Your task to perform on an android device: What's the news this week? Image 0: 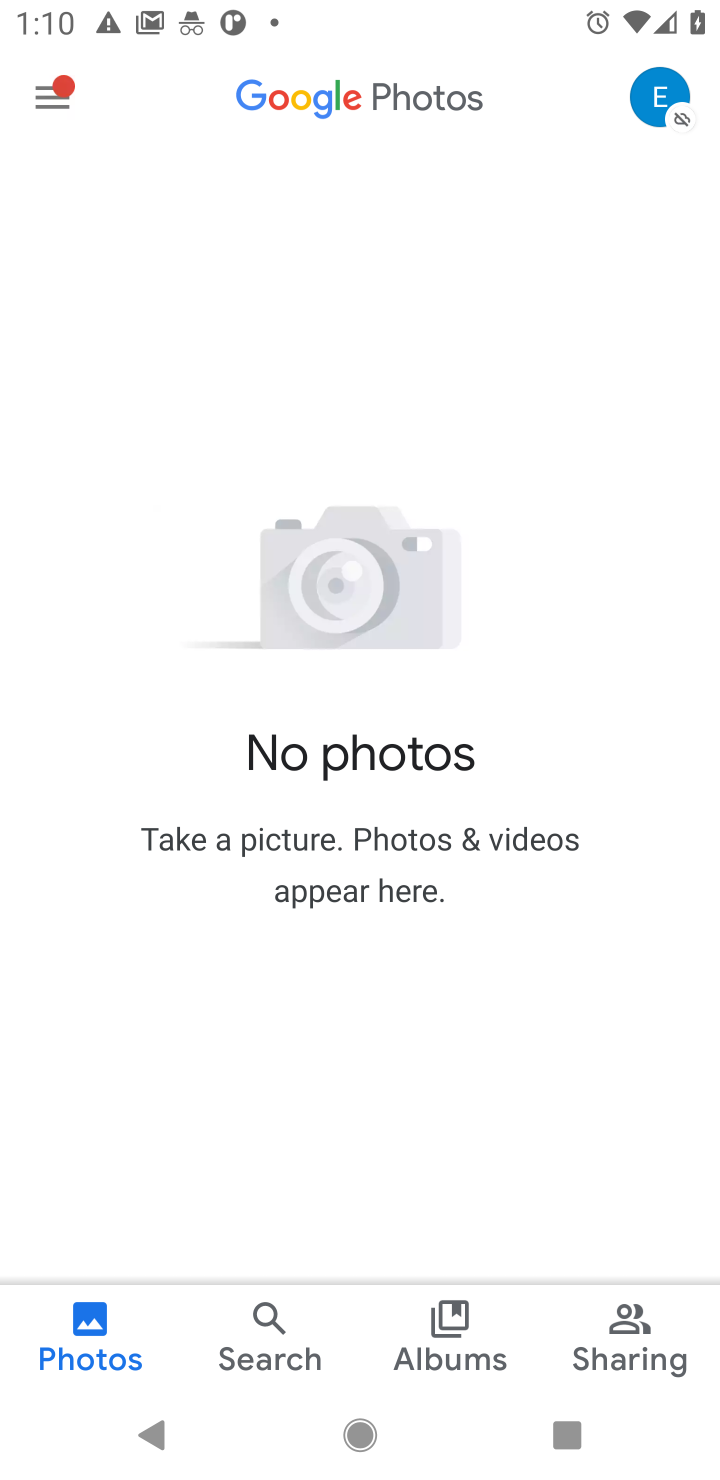
Step 0: press home button
Your task to perform on an android device: What's the news this week? Image 1: 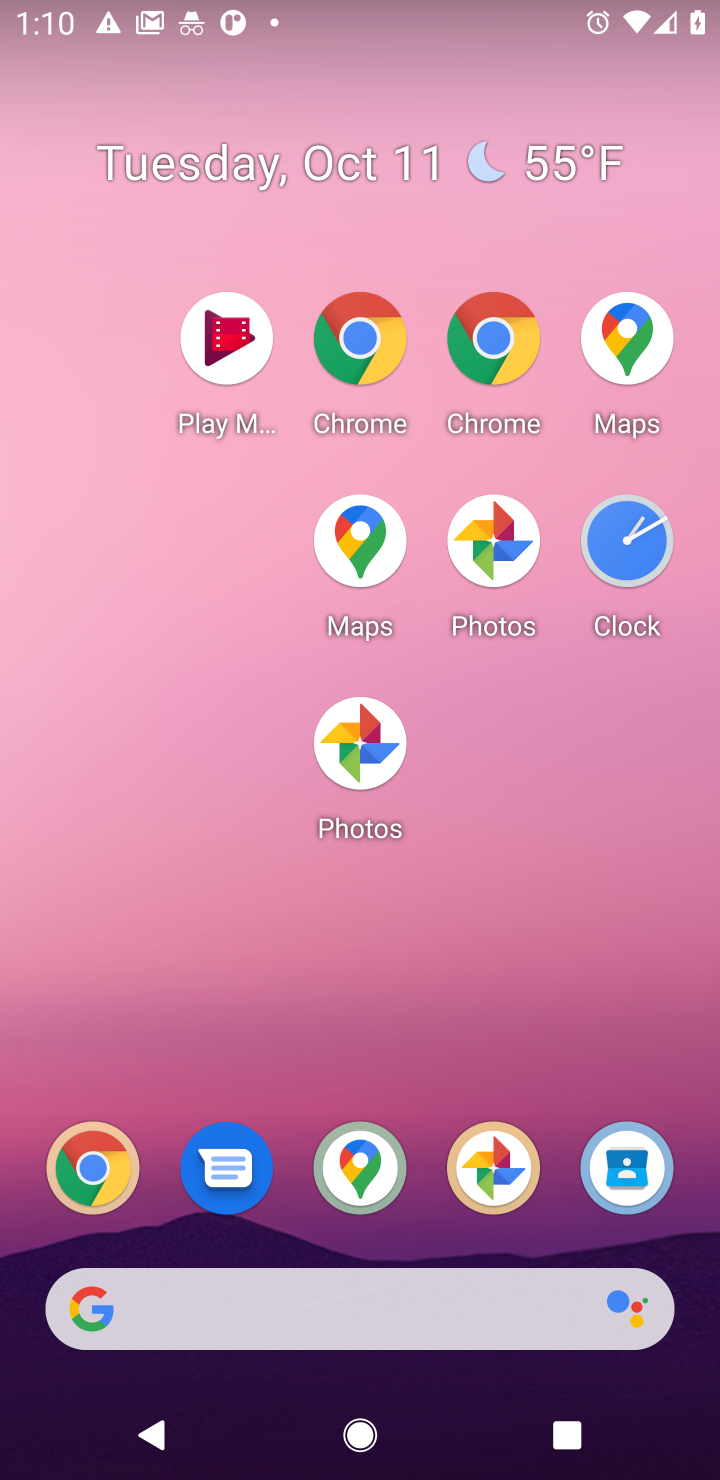
Step 1: click (661, 920)
Your task to perform on an android device: What's the news this week? Image 2: 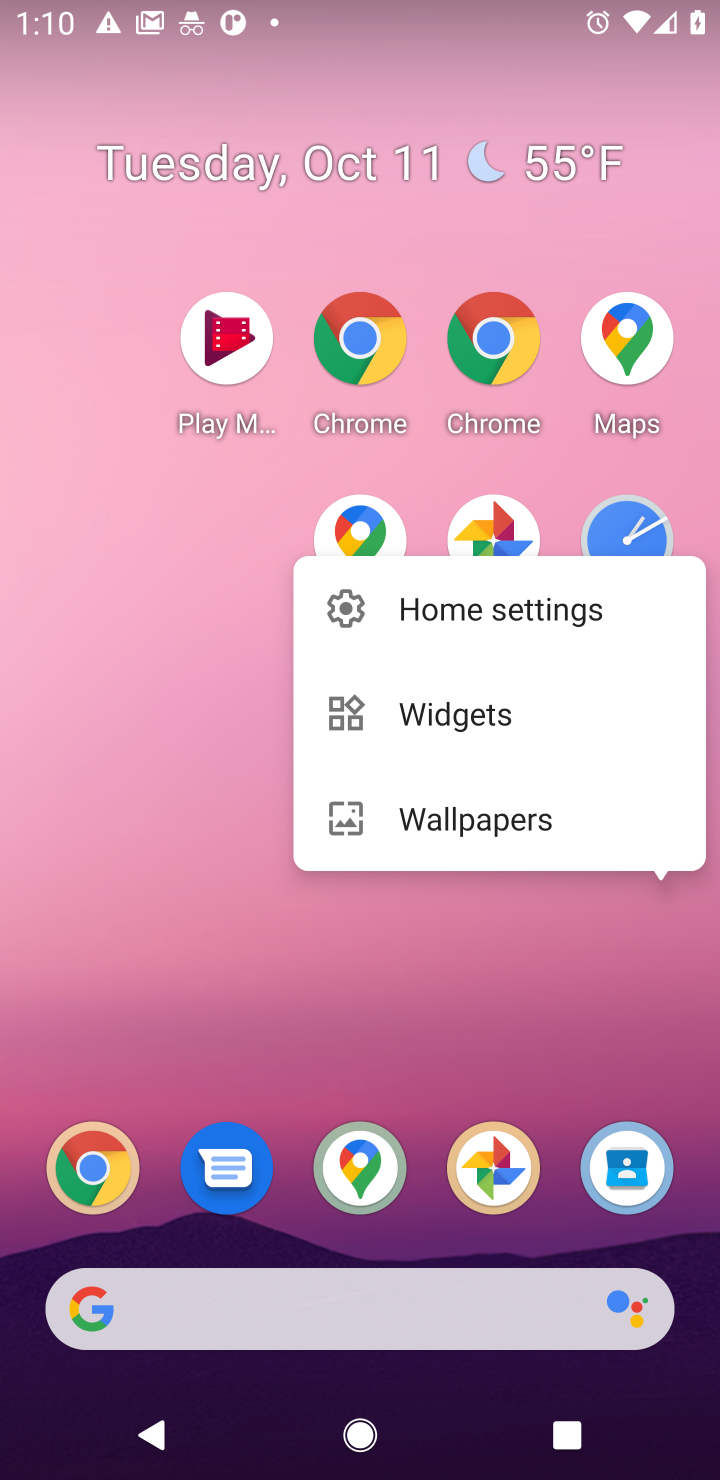
Step 2: drag from (392, 1240) to (510, 6)
Your task to perform on an android device: What's the news this week? Image 3: 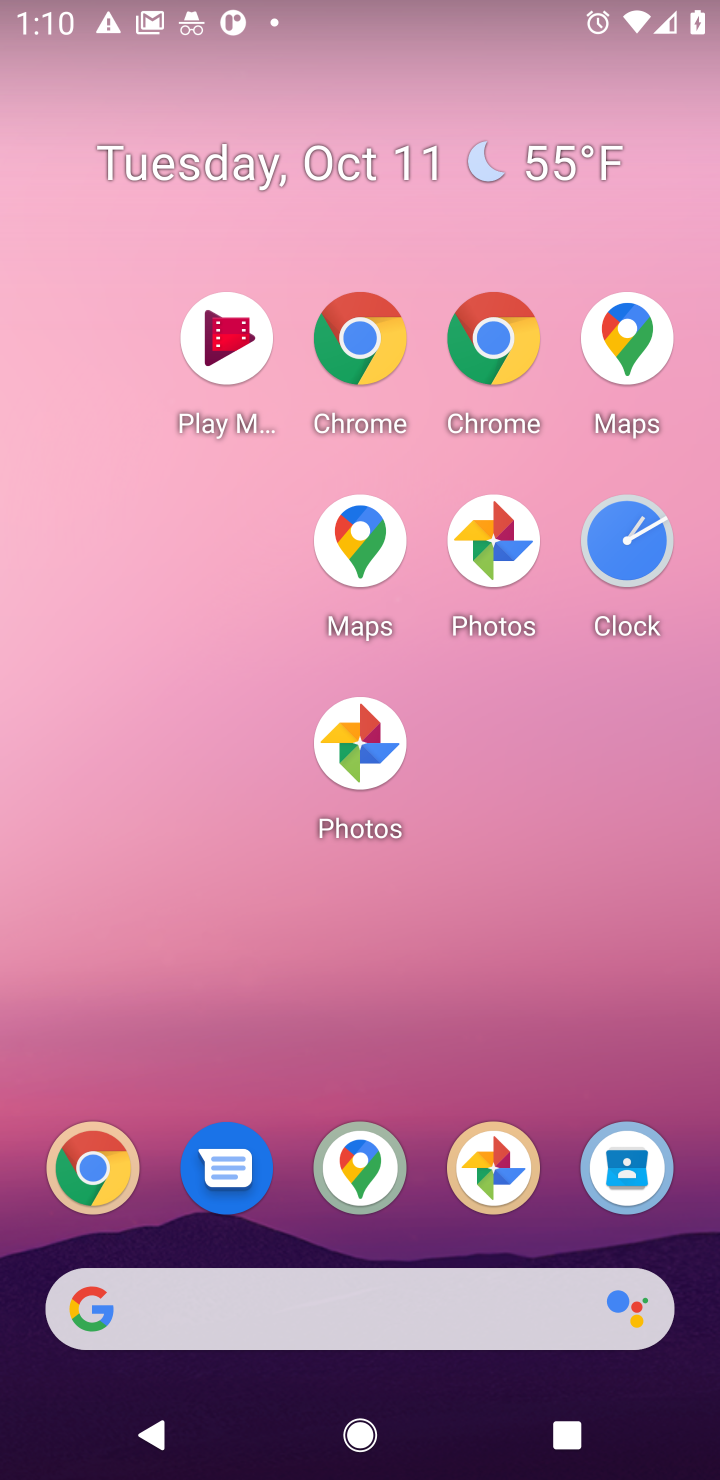
Step 3: drag from (430, 553) to (519, 3)
Your task to perform on an android device: What's the news this week? Image 4: 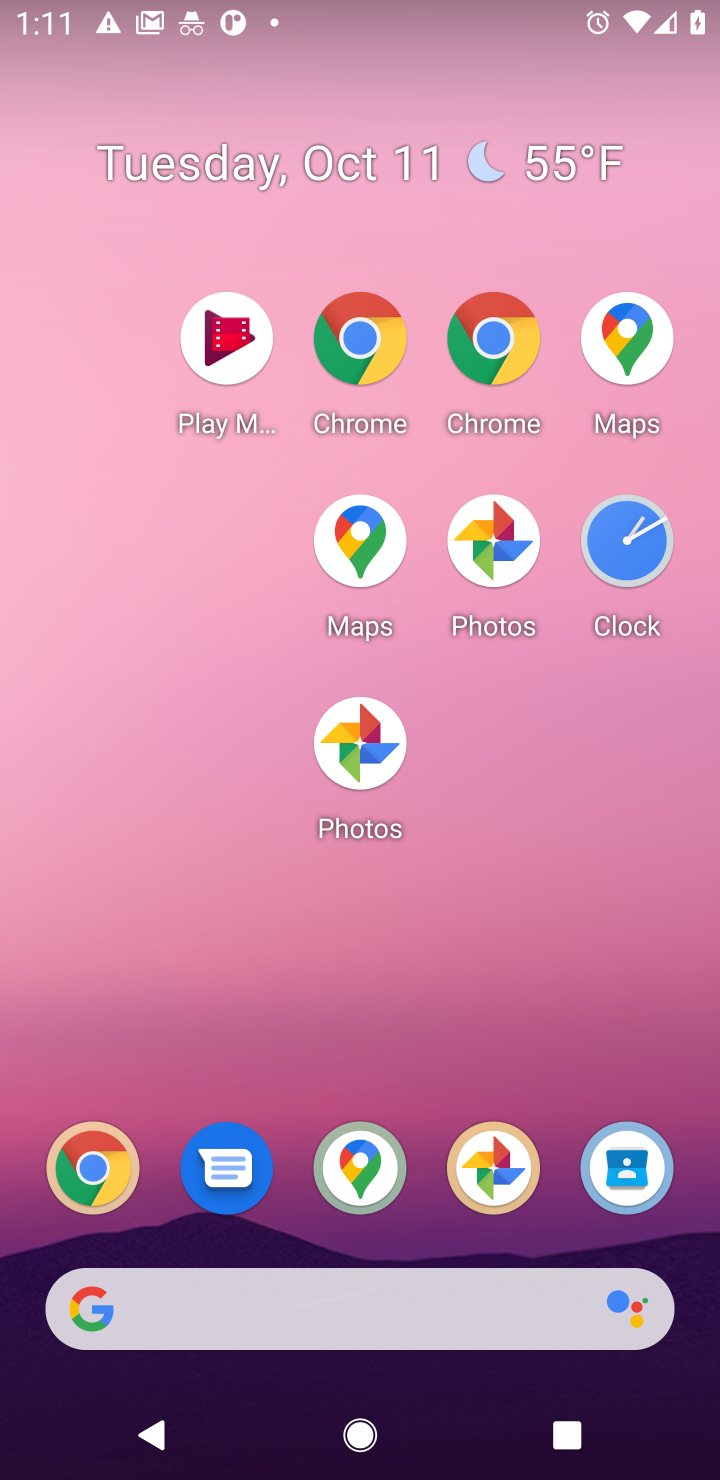
Step 4: drag from (435, 1112) to (447, 549)
Your task to perform on an android device: What's the news this week? Image 5: 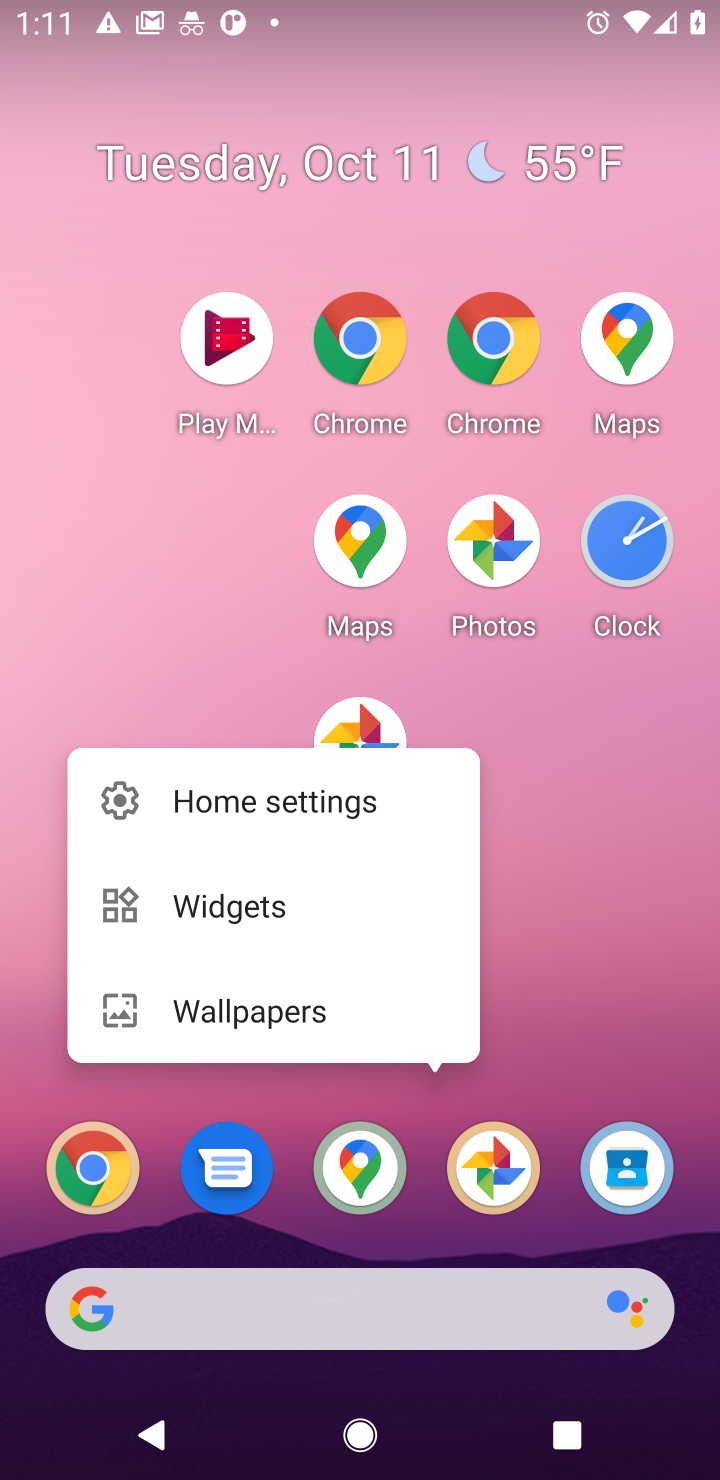
Step 5: click (246, 641)
Your task to perform on an android device: What's the news this week? Image 6: 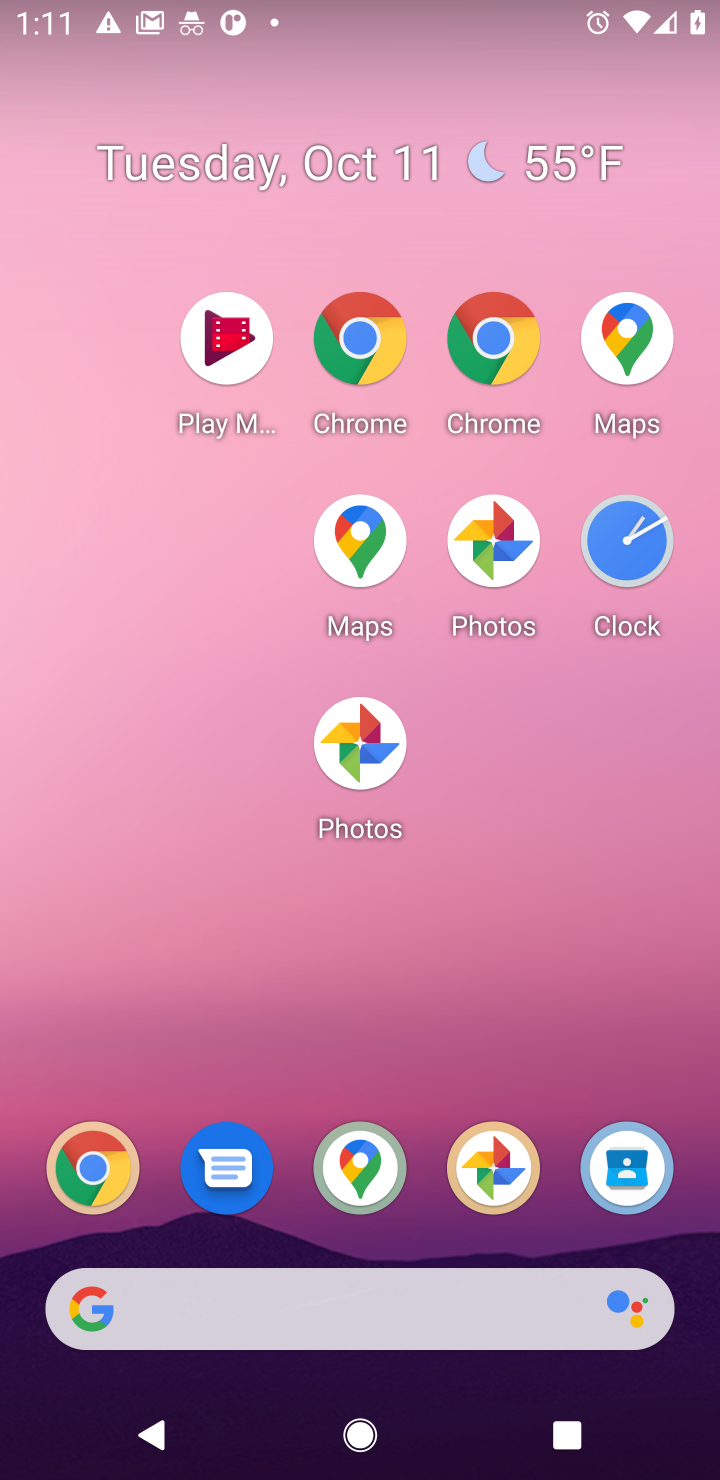
Step 6: drag from (394, 1182) to (480, 21)
Your task to perform on an android device: What's the news this week? Image 7: 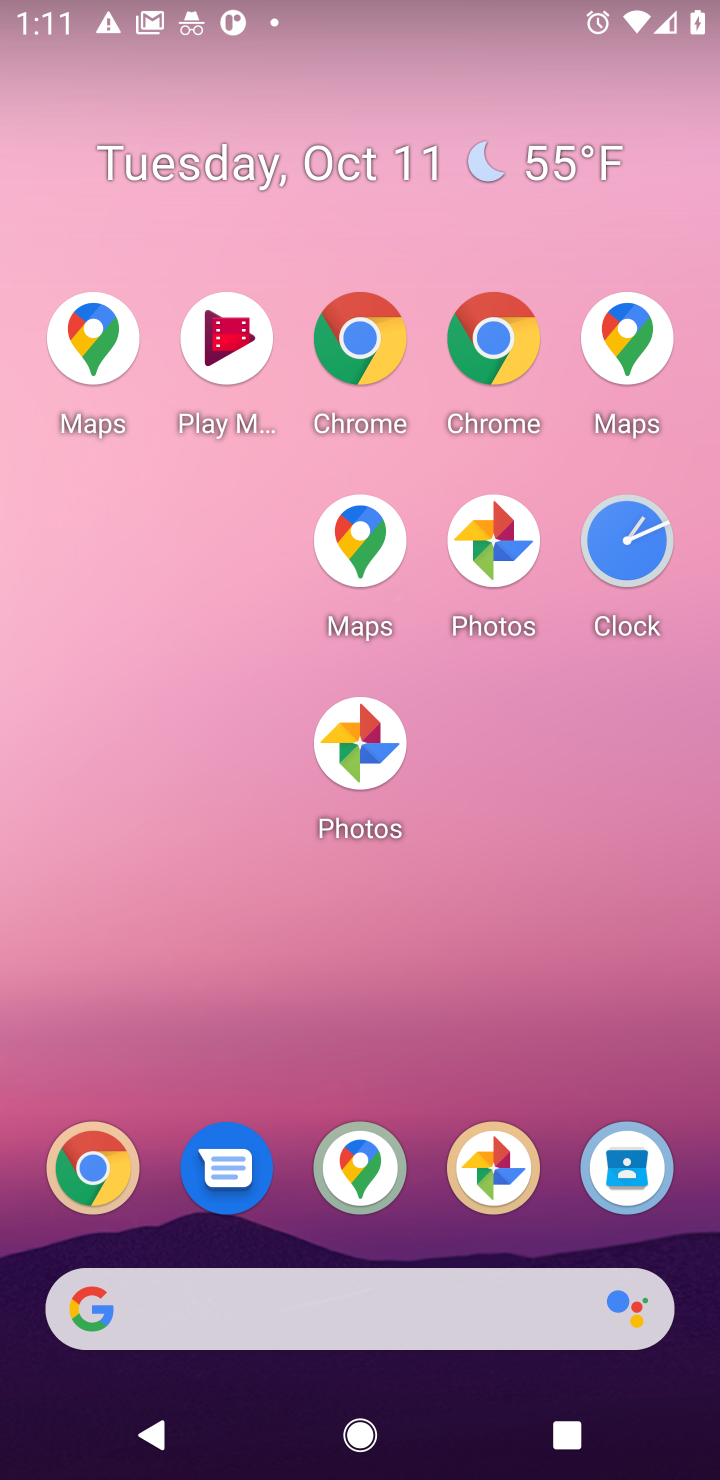
Step 7: drag from (417, 1082) to (542, 478)
Your task to perform on an android device: What's the news this week? Image 8: 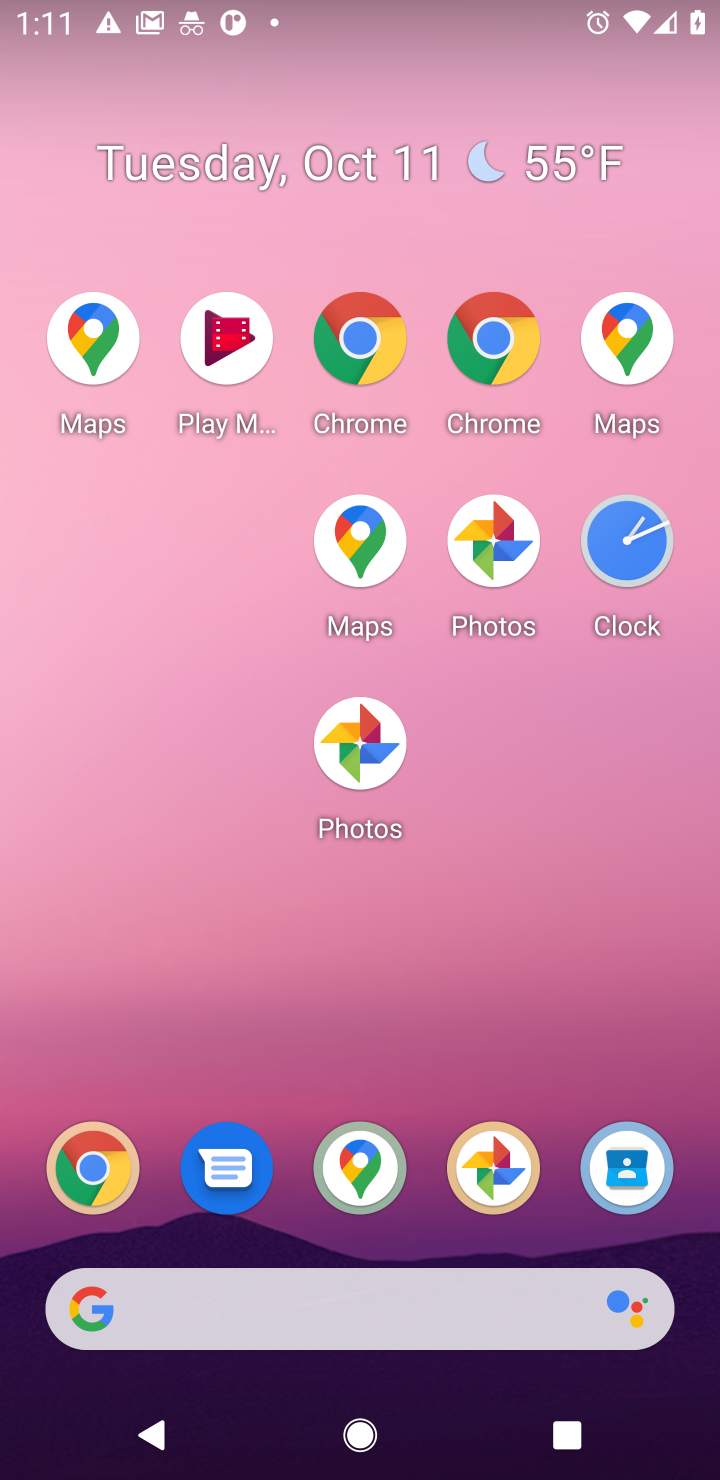
Step 8: drag from (528, 796) to (565, 281)
Your task to perform on an android device: What's the news this week? Image 9: 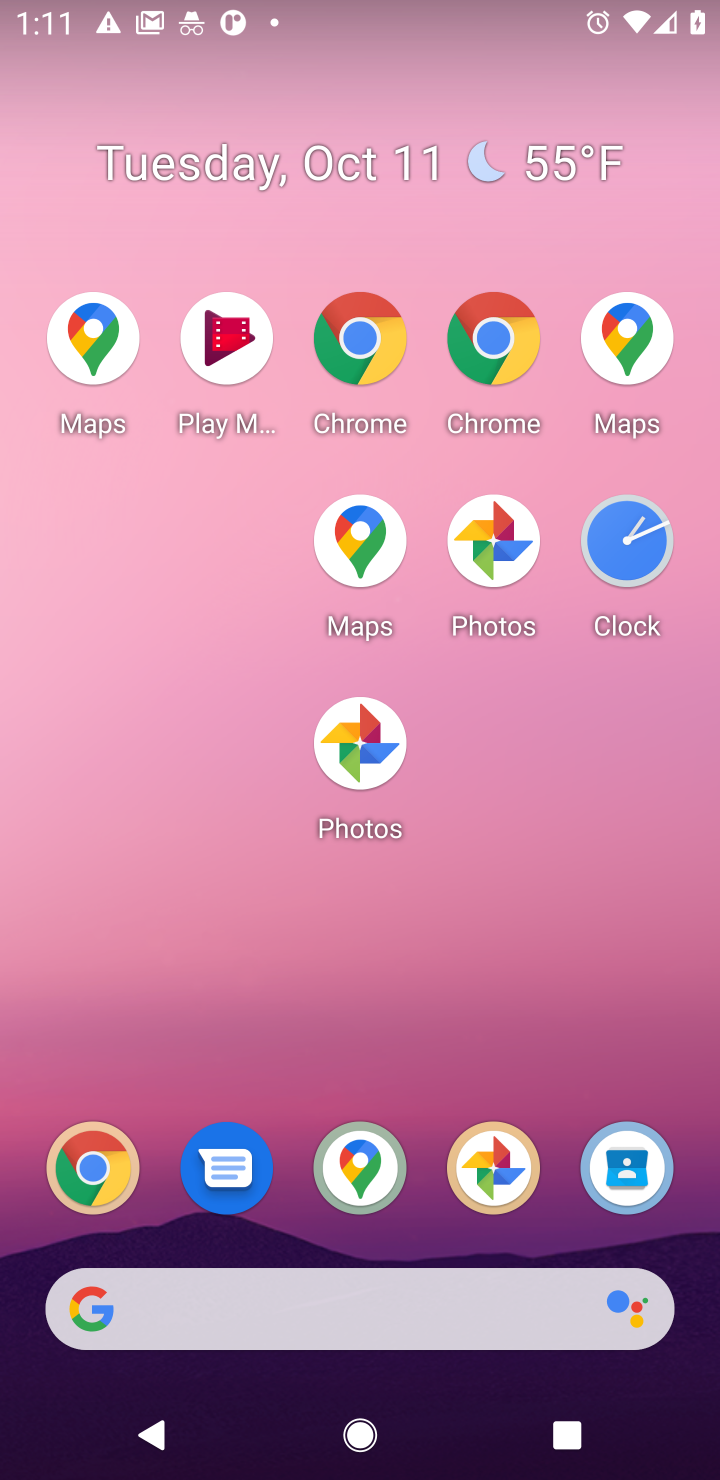
Step 9: drag from (435, 1107) to (483, 651)
Your task to perform on an android device: What's the news this week? Image 10: 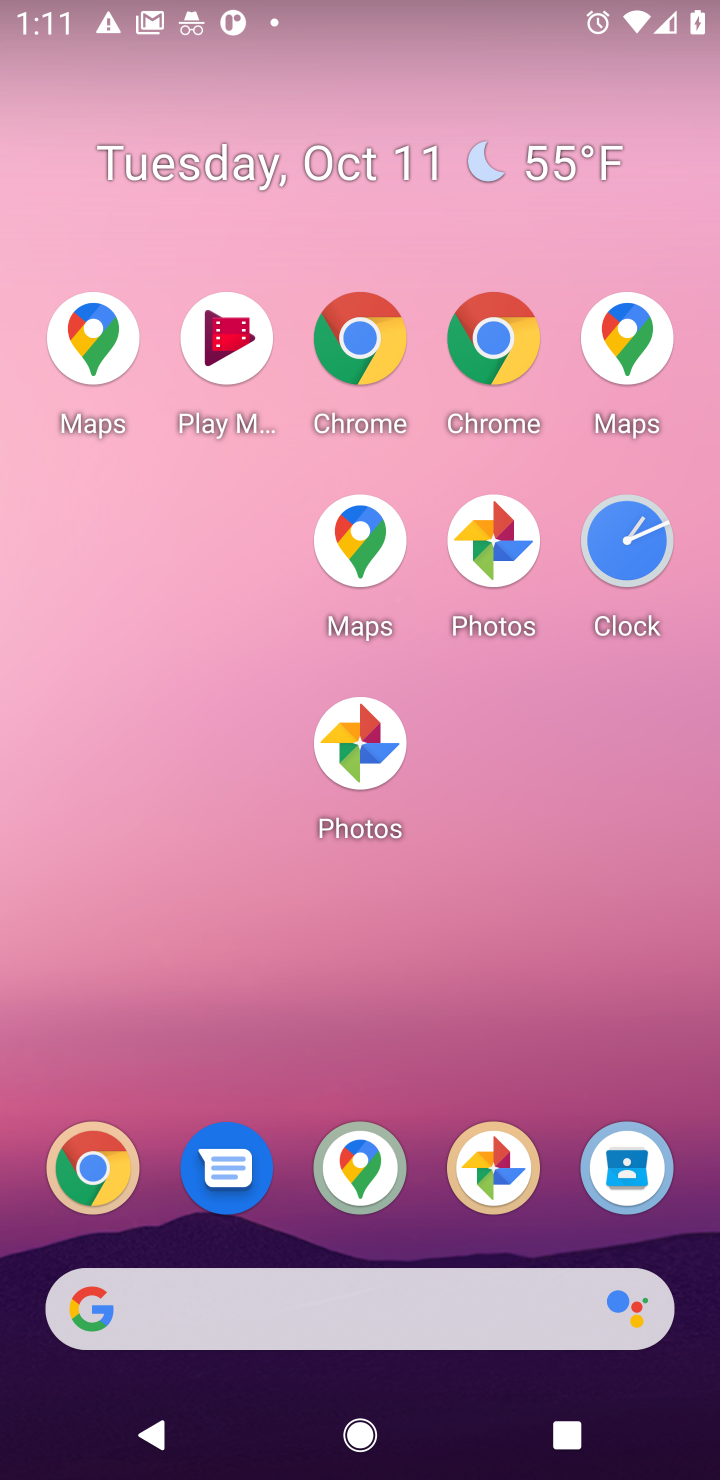
Step 10: drag from (459, 1077) to (541, 330)
Your task to perform on an android device: What's the news this week? Image 11: 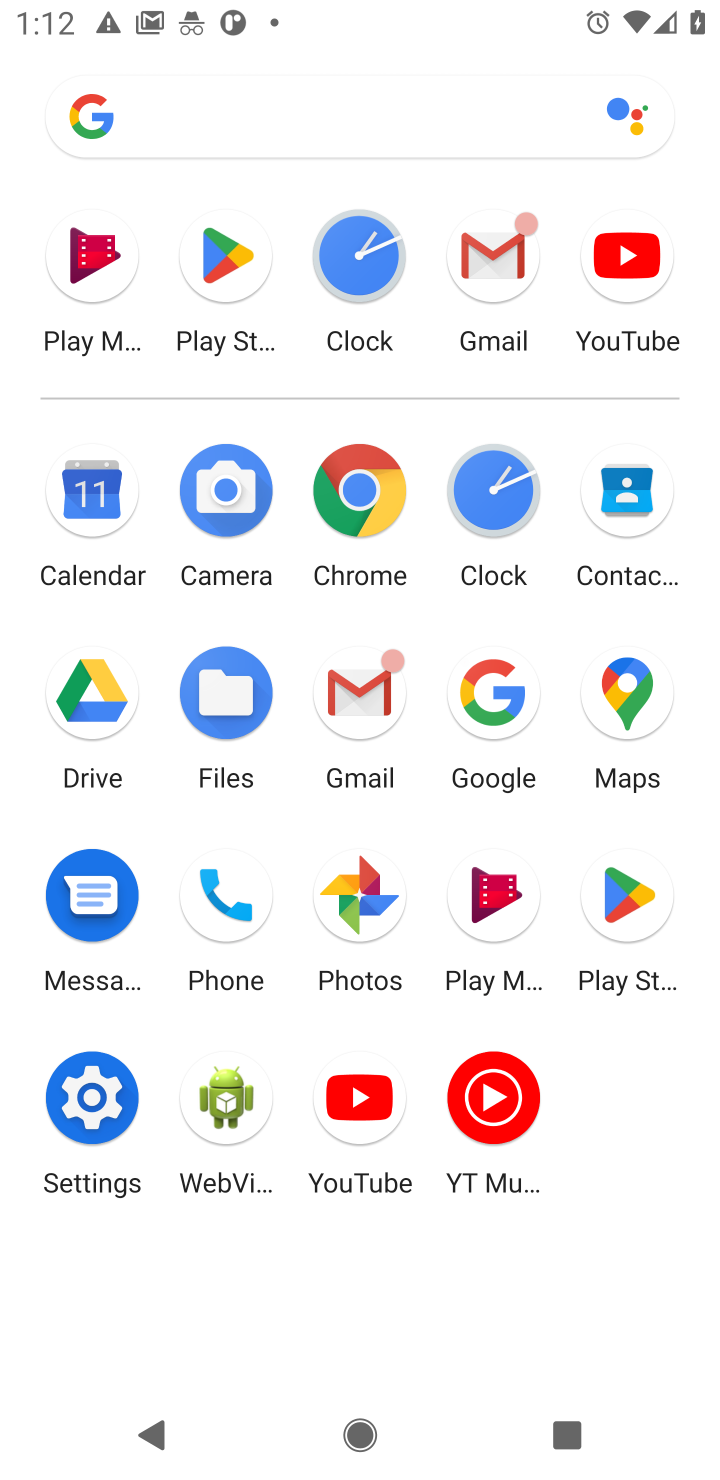
Step 11: click (508, 703)
Your task to perform on an android device: What's the news this week? Image 12: 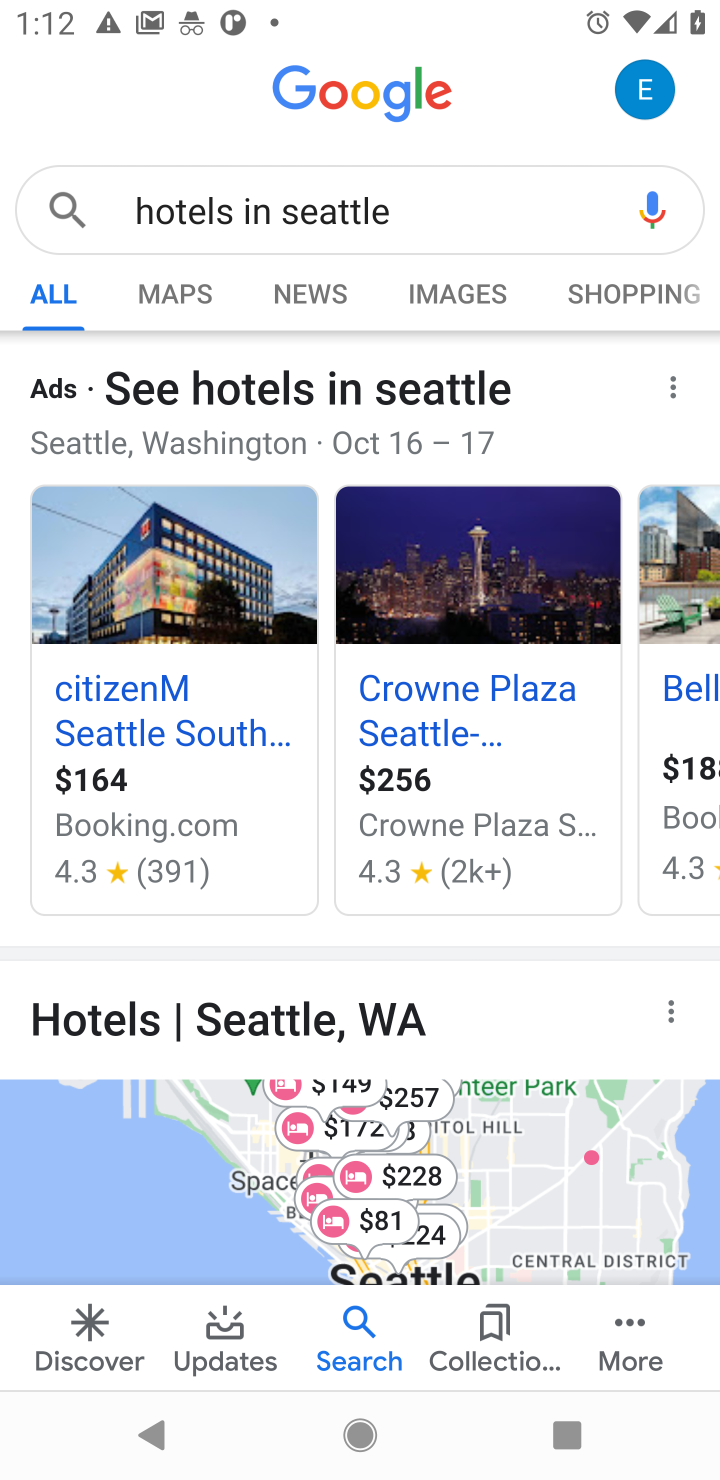
Step 12: click (505, 205)
Your task to perform on an android device: What's the news this week? Image 13: 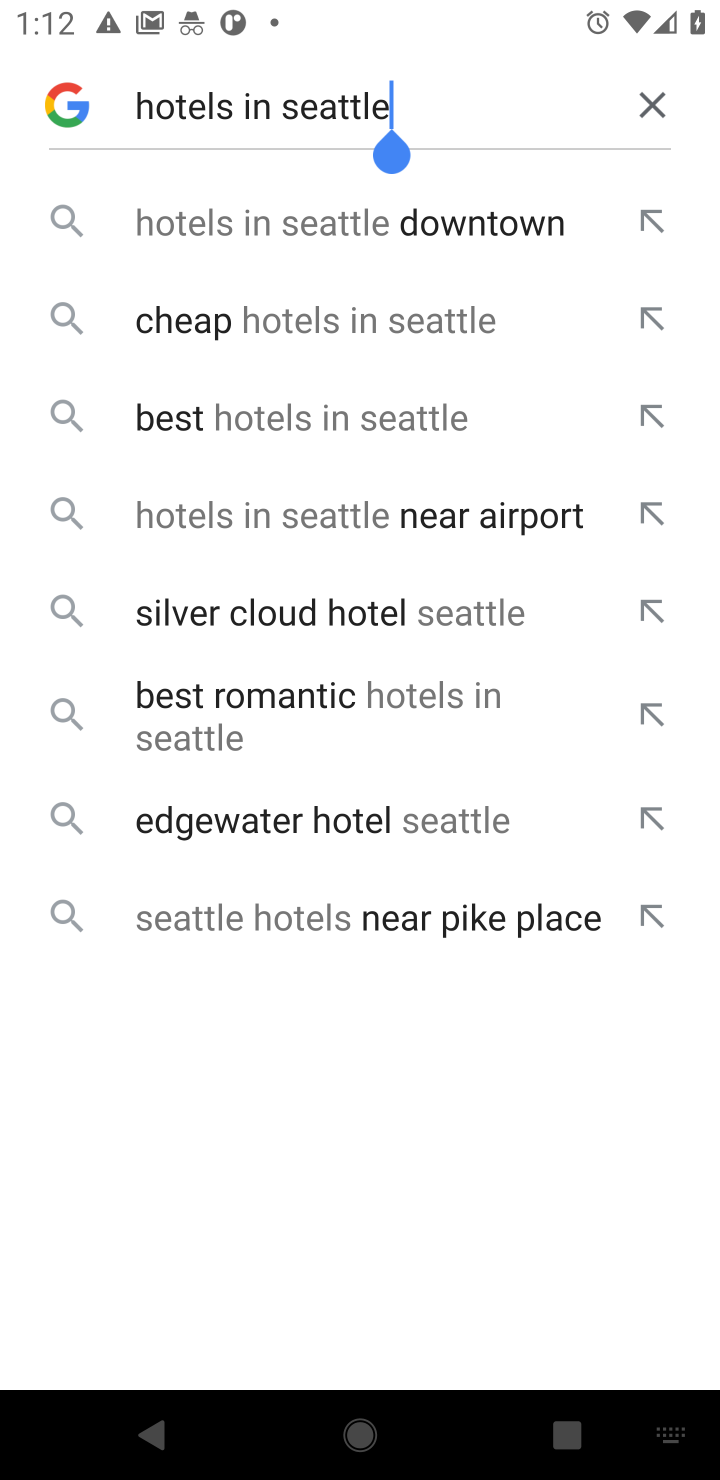
Step 13: click (653, 81)
Your task to perform on an android device: What's the news this week? Image 14: 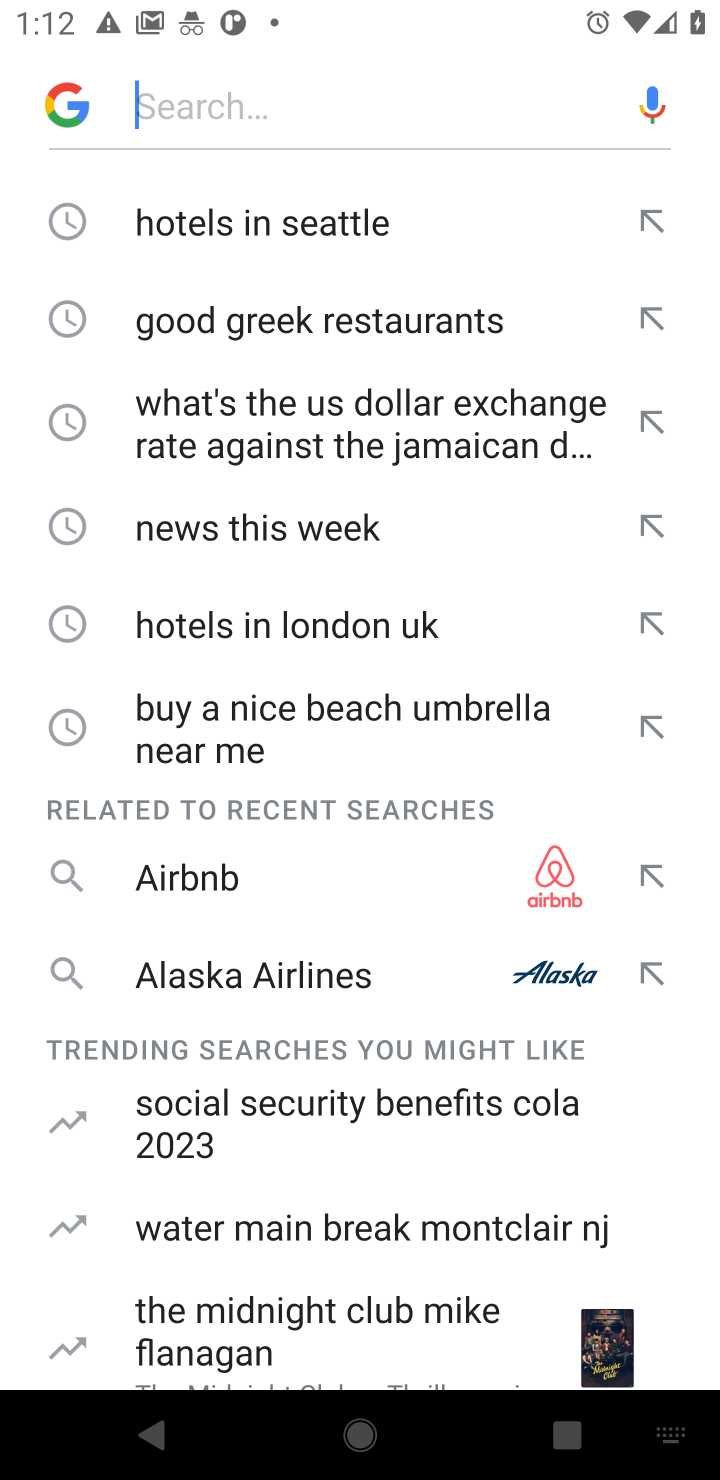
Step 14: type "news this week"
Your task to perform on an android device: What's the news this week? Image 15: 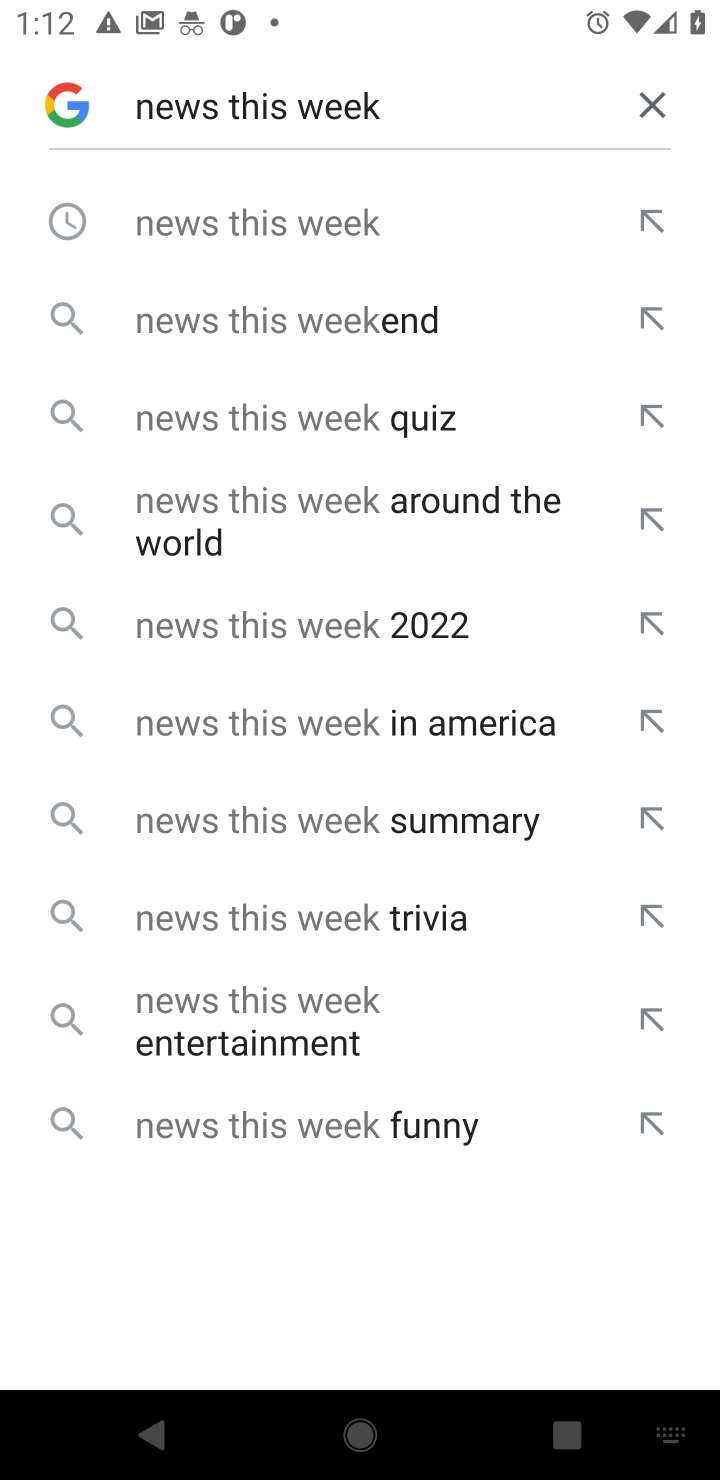
Step 15: click (346, 239)
Your task to perform on an android device: What's the news this week? Image 16: 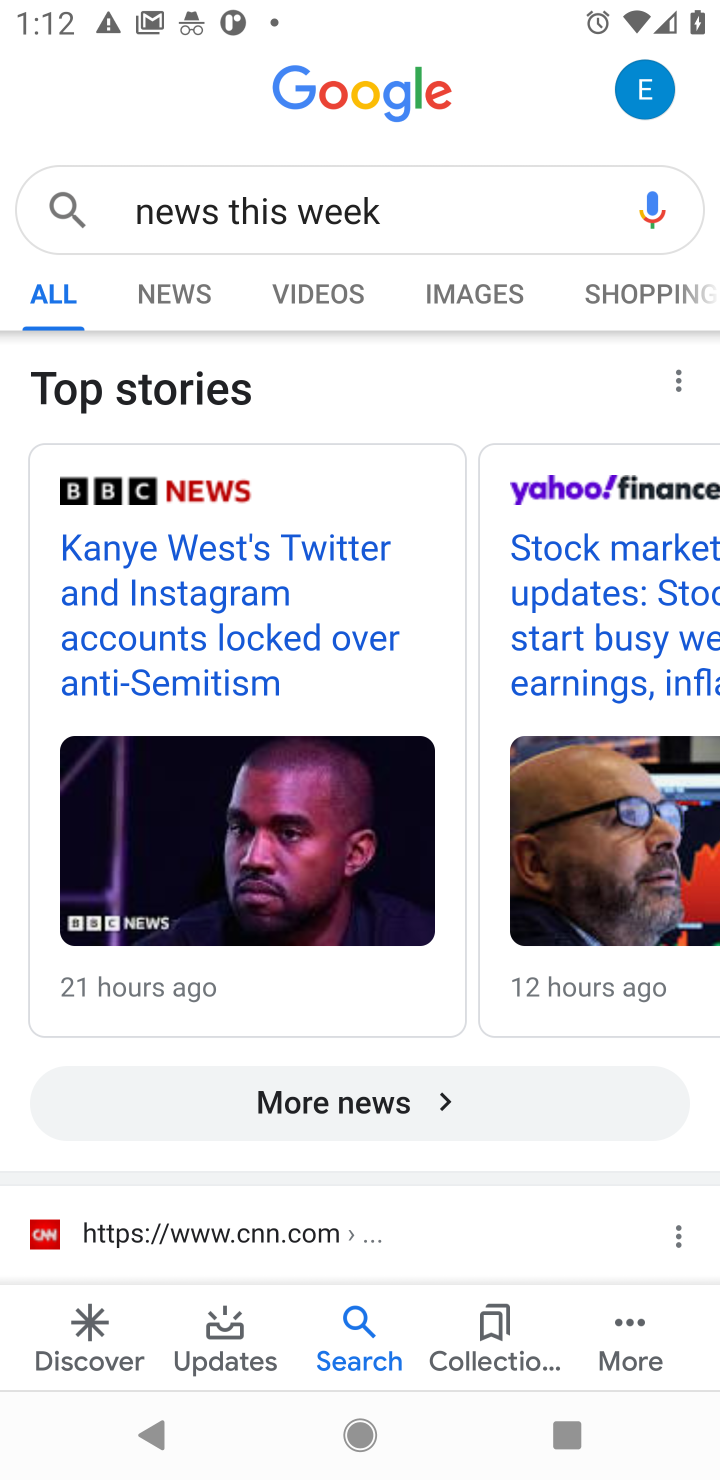
Step 16: click (190, 286)
Your task to perform on an android device: What's the news this week? Image 17: 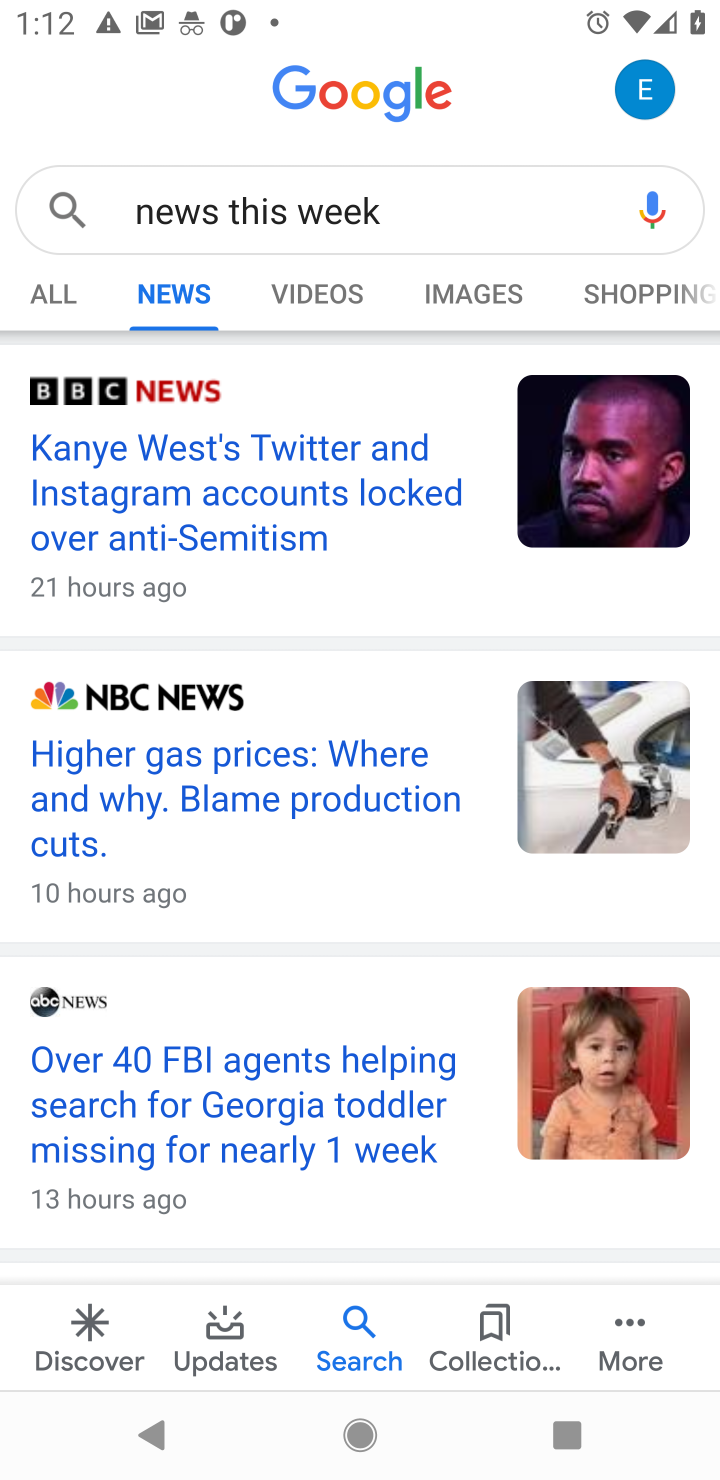
Step 17: task complete